Your task to perform on an android device: Is it going to rain today? Image 0: 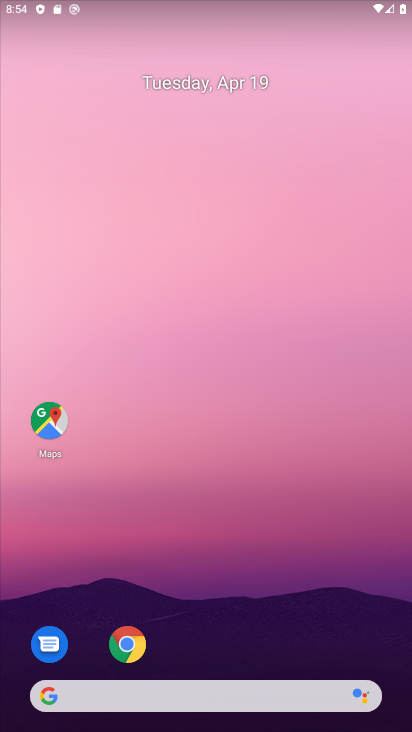
Step 0: drag from (228, 513) to (235, 160)
Your task to perform on an android device: Is it going to rain today? Image 1: 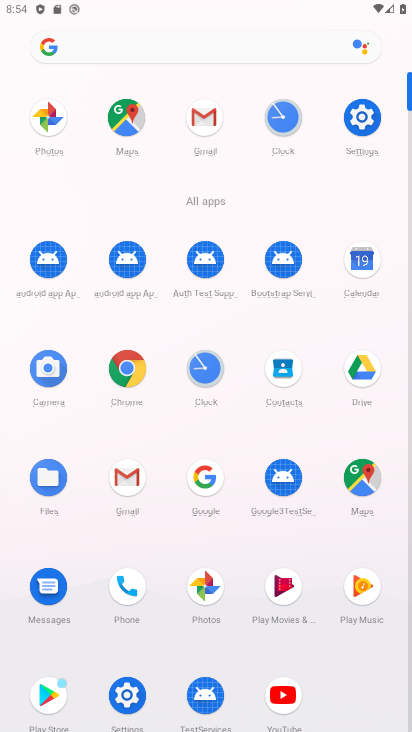
Step 1: click (200, 471)
Your task to perform on an android device: Is it going to rain today? Image 2: 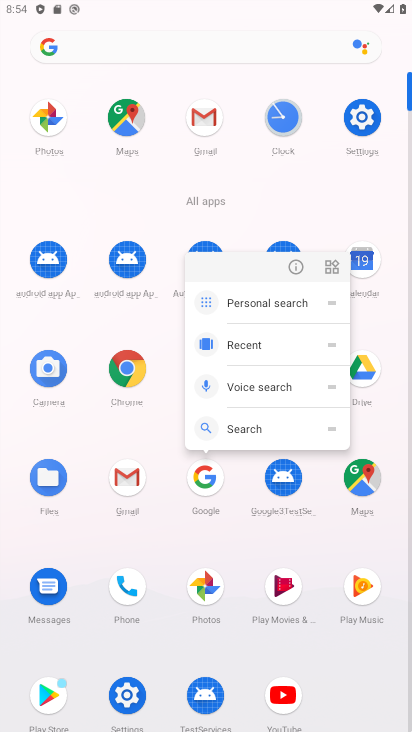
Step 2: click (200, 465)
Your task to perform on an android device: Is it going to rain today? Image 3: 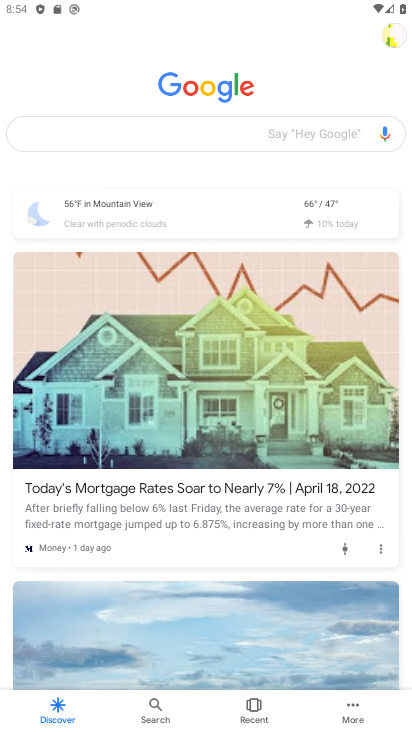
Step 3: click (125, 219)
Your task to perform on an android device: Is it going to rain today? Image 4: 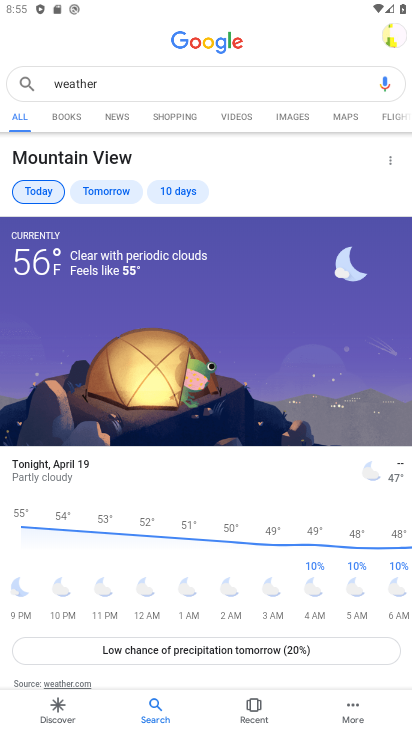
Step 4: task complete